Your task to perform on an android device: Play the new Taylor Swift video on YouTube Image 0: 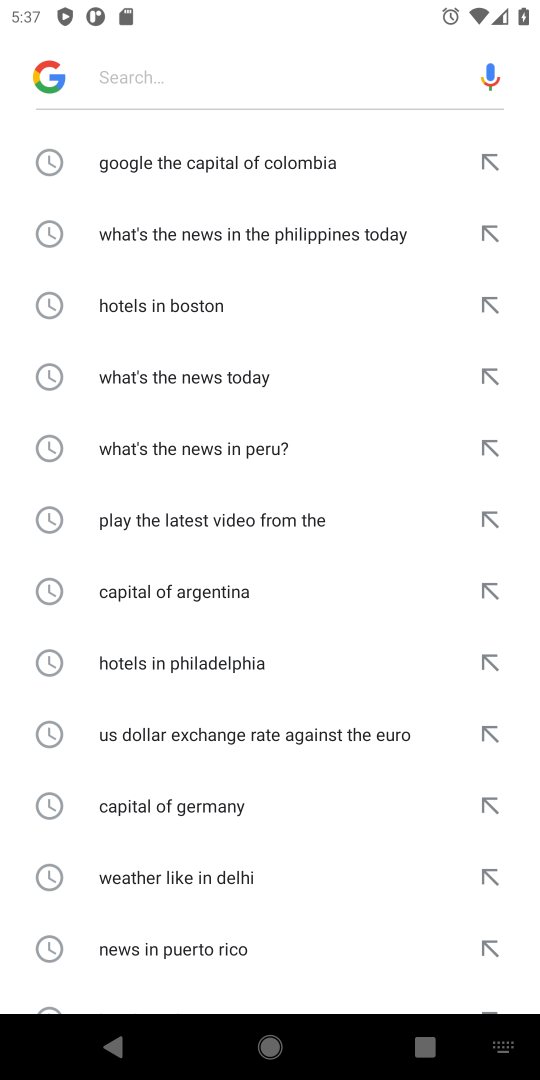
Step 0: press home button
Your task to perform on an android device: Play the new Taylor Swift video on YouTube Image 1: 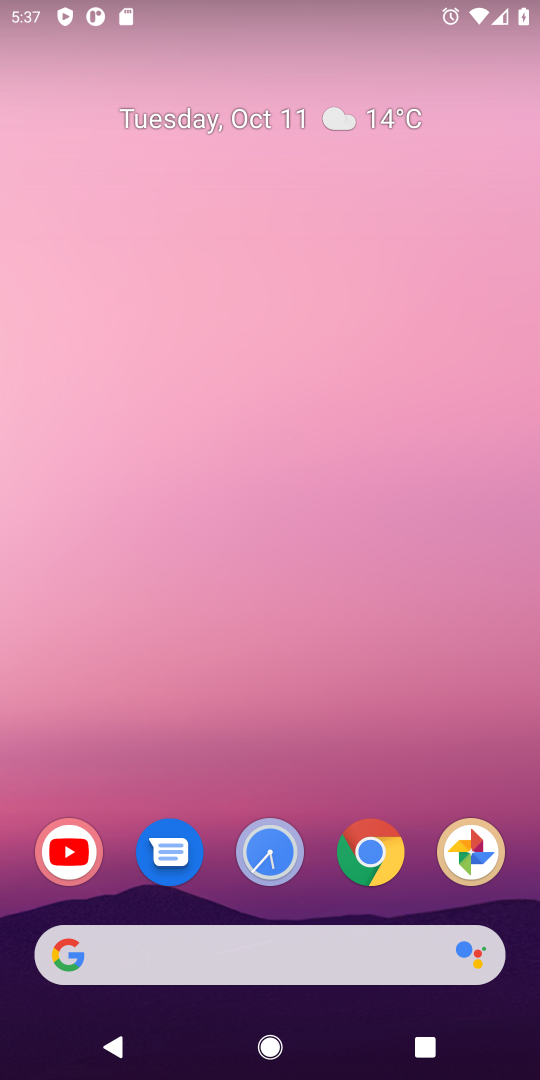
Step 1: click (84, 852)
Your task to perform on an android device: Play the new Taylor Swift video on YouTube Image 2: 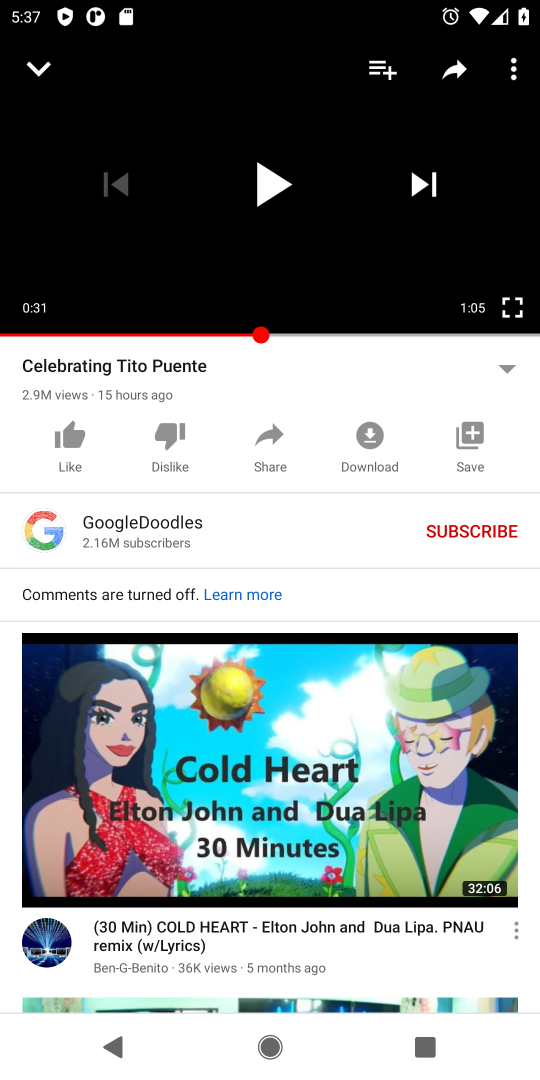
Step 2: drag from (341, 193) to (540, 898)
Your task to perform on an android device: Play the new Taylor Swift video on YouTube Image 3: 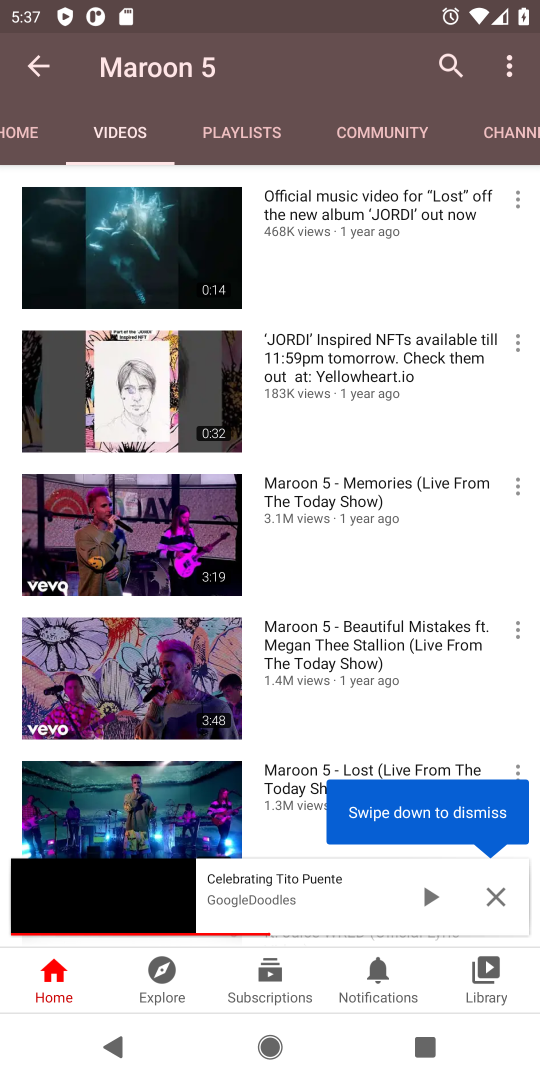
Step 3: click (501, 897)
Your task to perform on an android device: Play the new Taylor Swift video on YouTube Image 4: 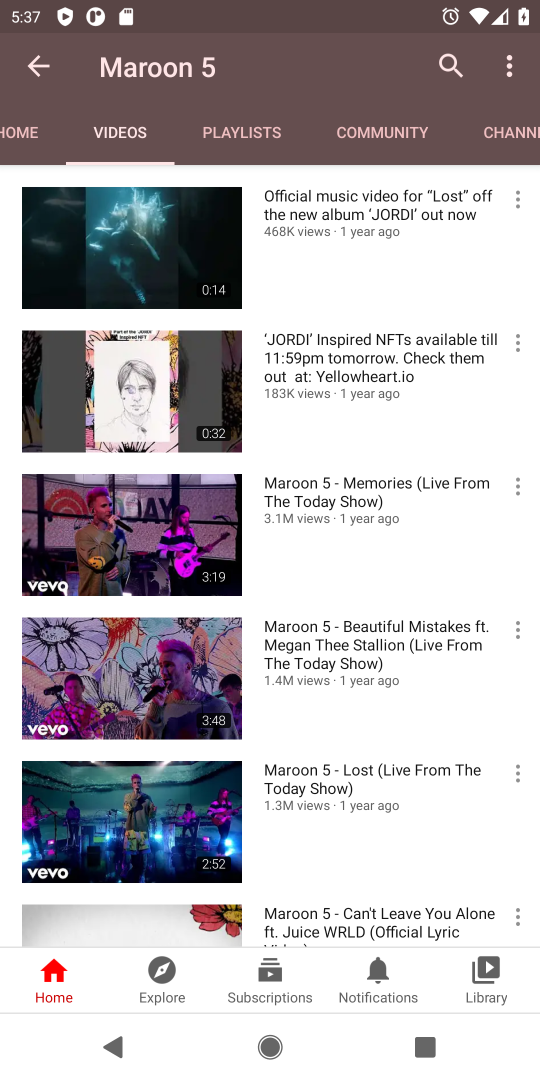
Step 4: click (448, 61)
Your task to perform on an android device: Play the new Taylor Swift video on YouTube Image 5: 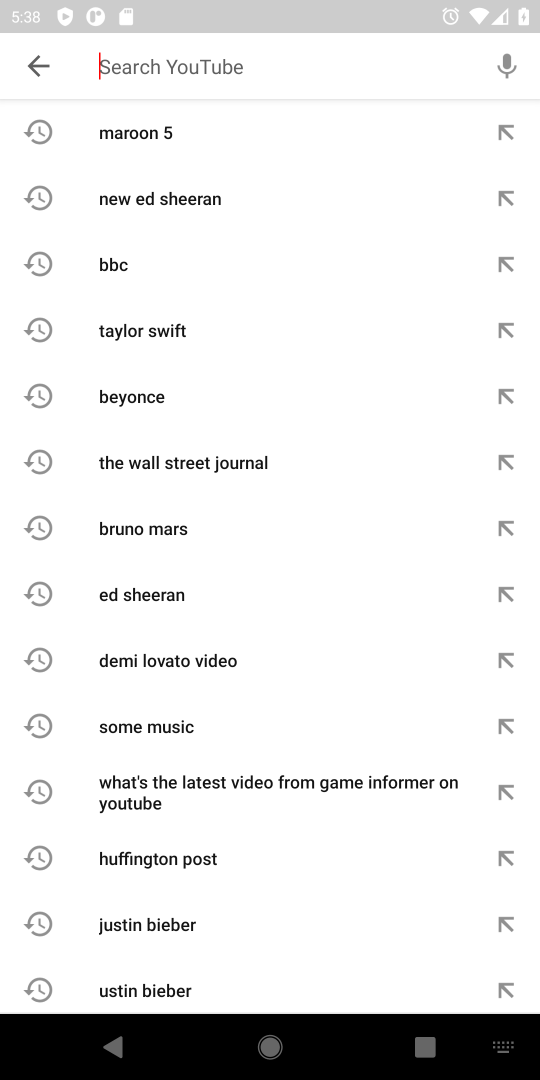
Step 5: type "taylor swift"
Your task to perform on an android device: Play the new Taylor Swift video on YouTube Image 6: 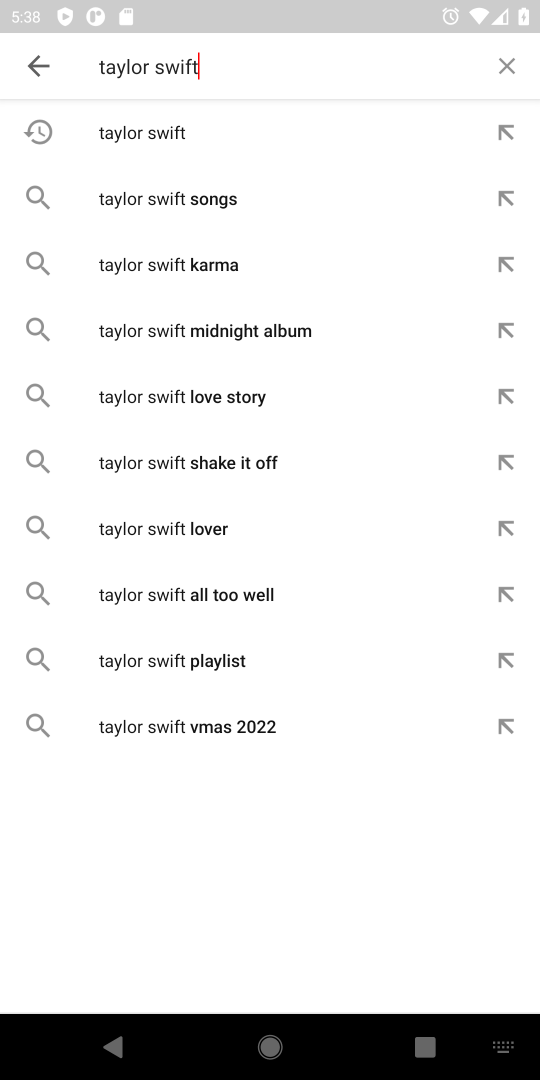
Step 6: click (179, 123)
Your task to perform on an android device: Play the new Taylor Swift video on YouTube Image 7: 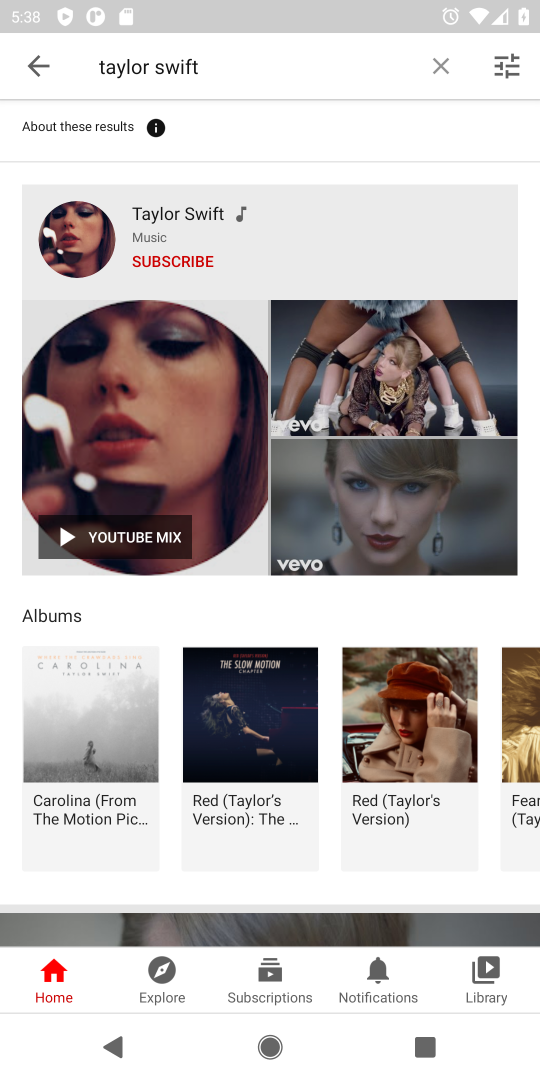
Step 7: click (254, 245)
Your task to perform on an android device: Play the new Taylor Swift video on YouTube Image 8: 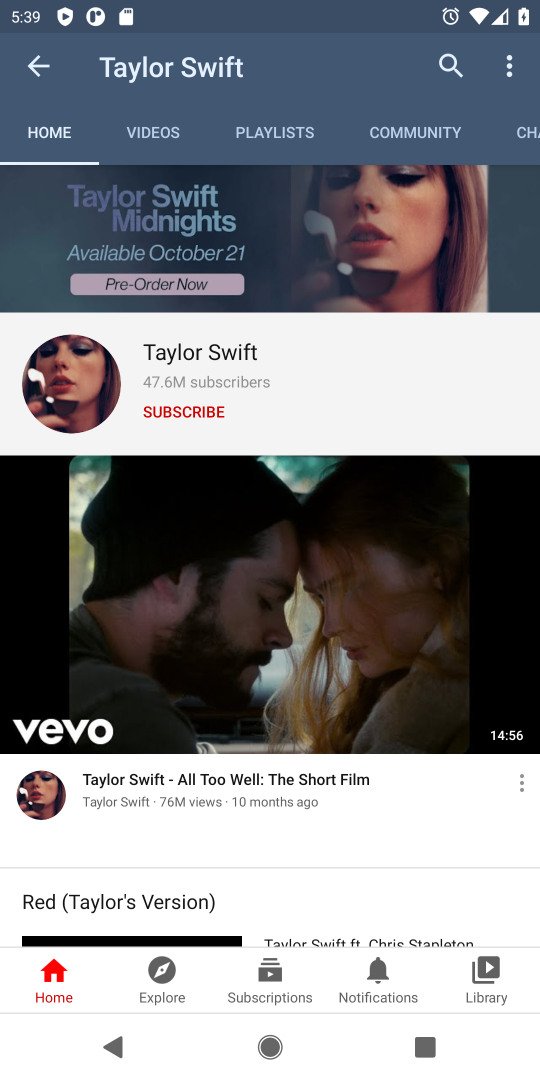
Step 8: click (168, 148)
Your task to perform on an android device: Play the new Taylor Swift video on YouTube Image 9: 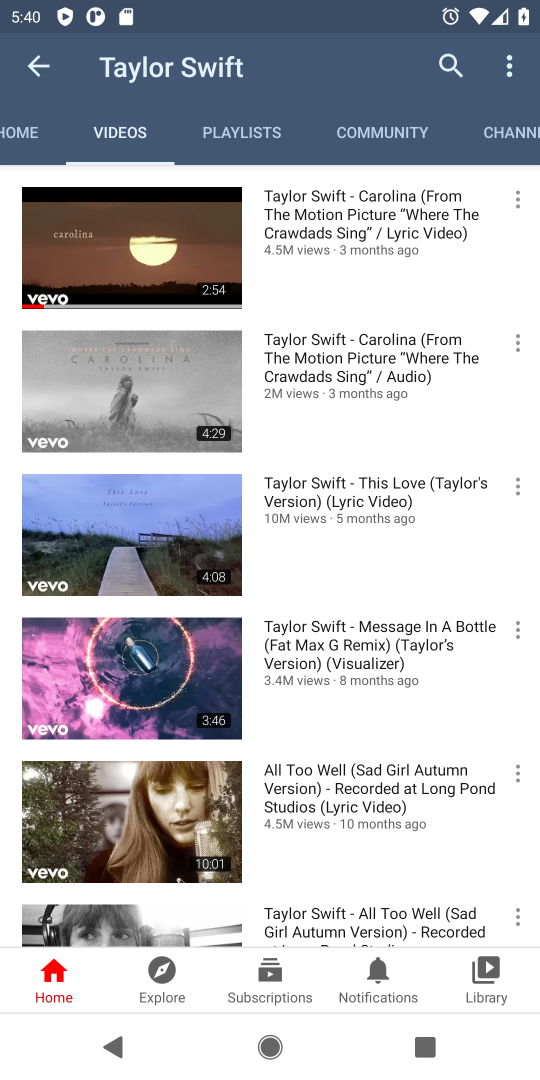
Step 9: click (403, 201)
Your task to perform on an android device: Play the new Taylor Swift video on YouTube Image 10: 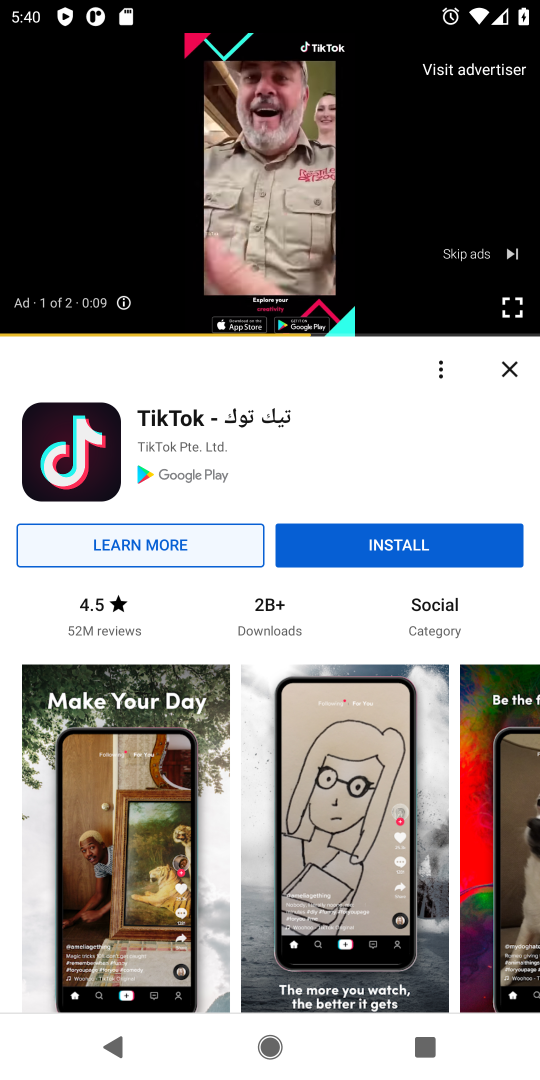
Step 10: task complete